Your task to perform on an android device: Add macbook to the cart on newegg, then select checkout. Image 0: 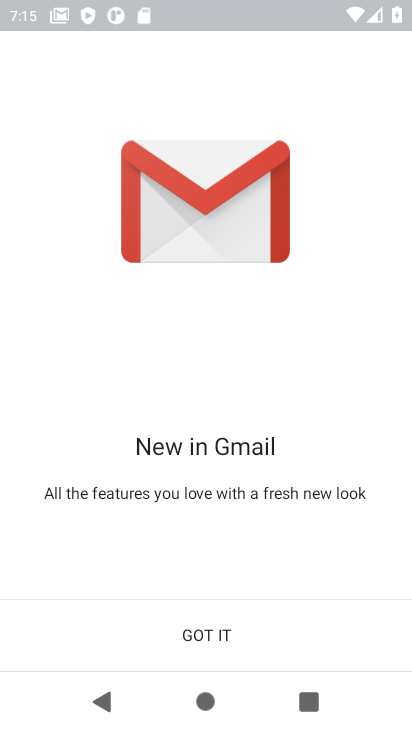
Step 0: press home button
Your task to perform on an android device: Add macbook to the cart on newegg, then select checkout. Image 1: 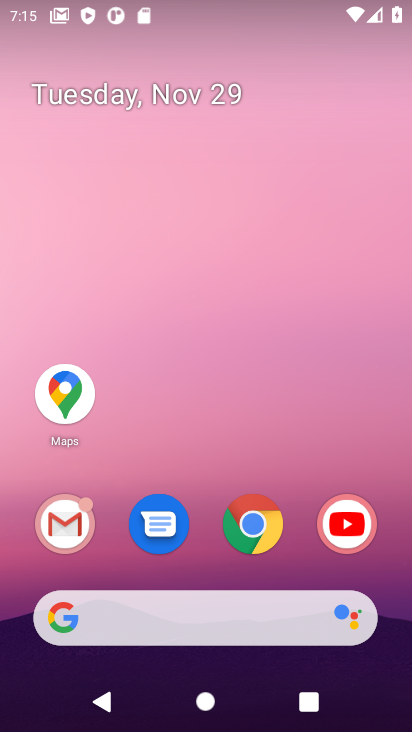
Step 1: click (257, 530)
Your task to perform on an android device: Add macbook to the cart on newegg, then select checkout. Image 2: 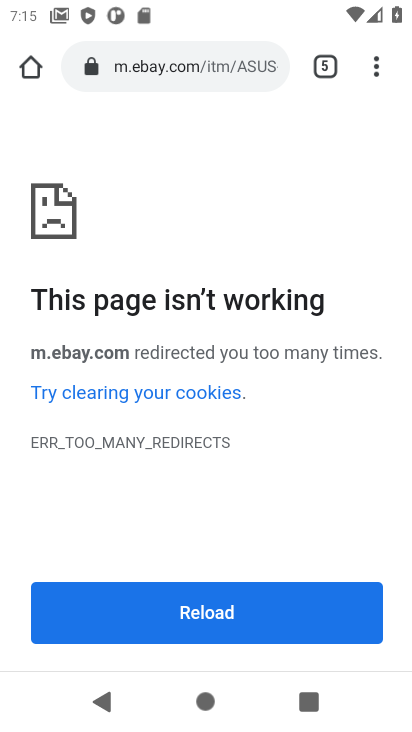
Step 2: click (168, 61)
Your task to perform on an android device: Add macbook to the cart on newegg, then select checkout. Image 3: 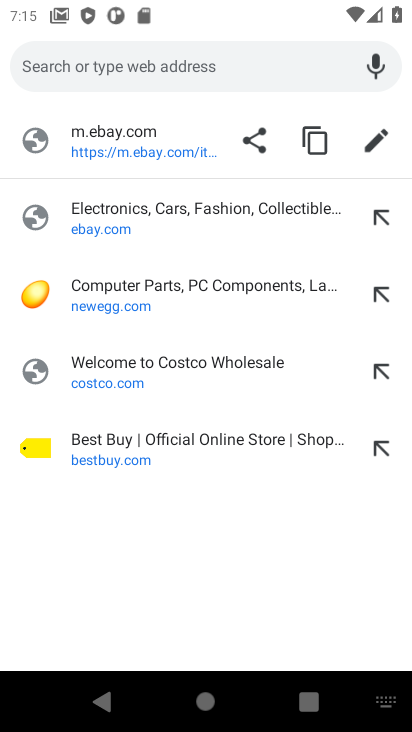
Step 3: click (73, 293)
Your task to perform on an android device: Add macbook to the cart on newegg, then select checkout. Image 4: 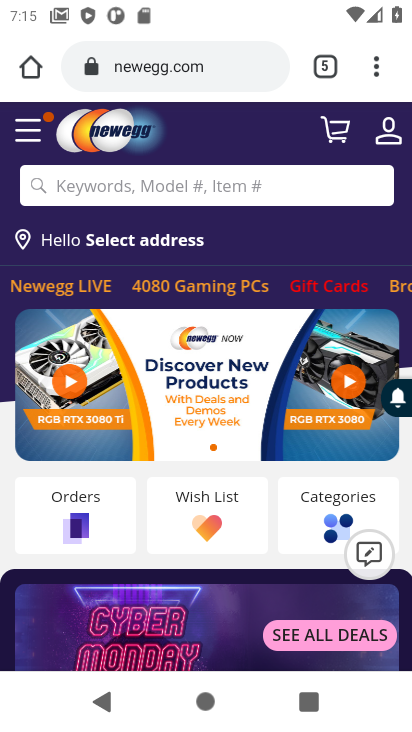
Step 4: click (95, 185)
Your task to perform on an android device: Add macbook to the cart on newegg, then select checkout. Image 5: 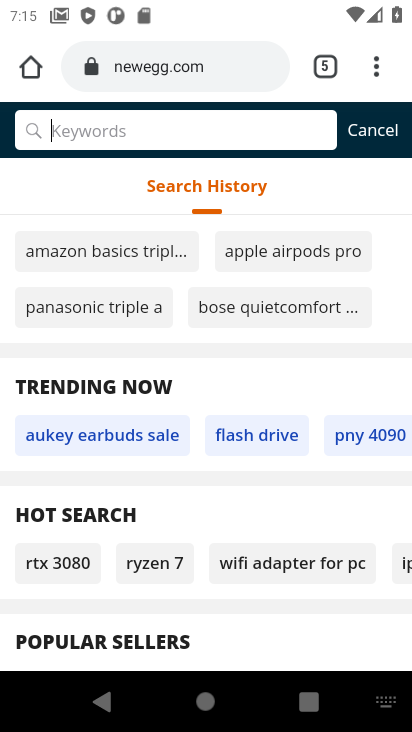
Step 5: type "macbook"
Your task to perform on an android device: Add macbook to the cart on newegg, then select checkout. Image 6: 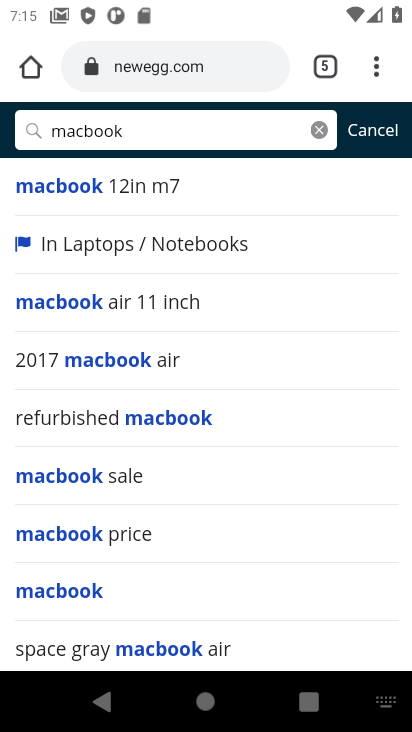
Step 6: click (50, 586)
Your task to perform on an android device: Add macbook to the cart on newegg, then select checkout. Image 7: 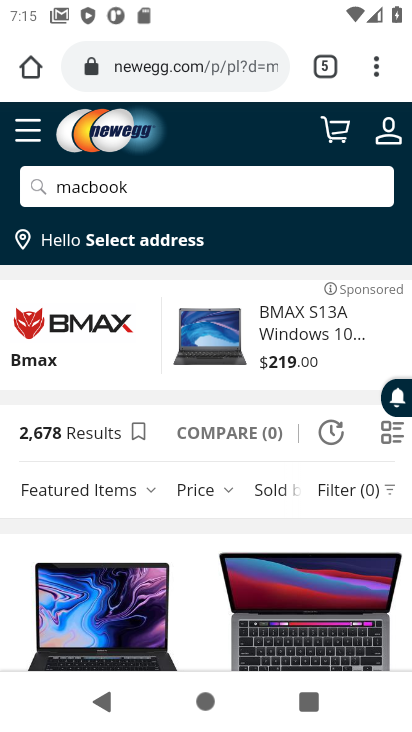
Step 7: drag from (147, 565) to (144, 415)
Your task to perform on an android device: Add macbook to the cart on newegg, then select checkout. Image 8: 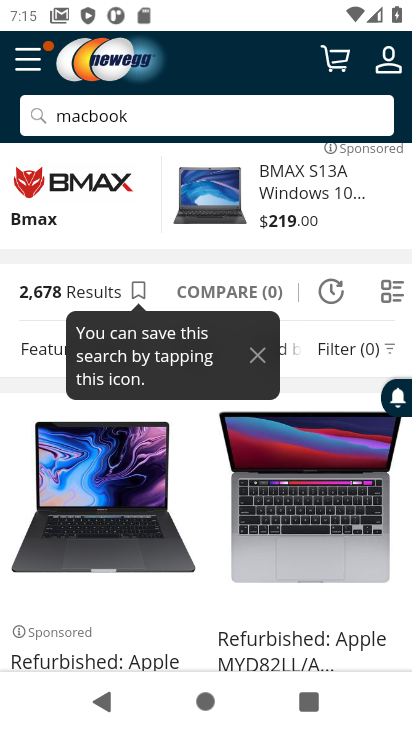
Step 8: drag from (155, 617) to (148, 455)
Your task to perform on an android device: Add macbook to the cart on newegg, then select checkout. Image 9: 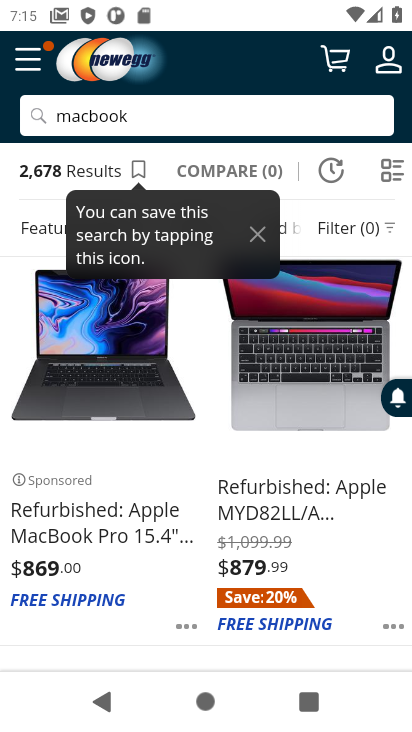
Step 9: click (87, 407)
Your task to perform on an android device: Add macbook to the cart on newegg, then select checkout. Image 10: 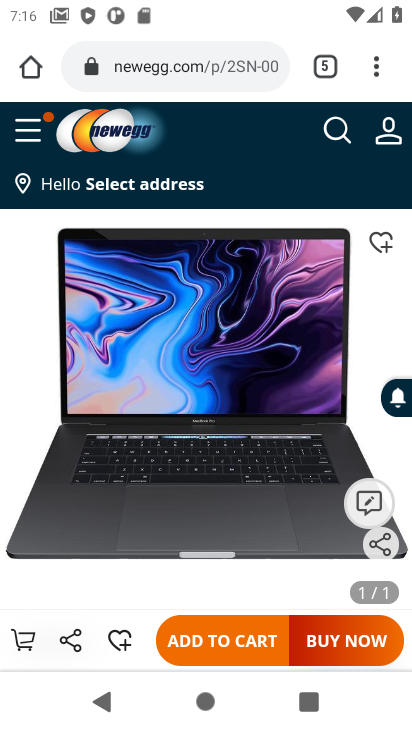
Step 10: click (211, 647)
Your task to perform on an android device: Add macbook to the cart on newegg, then select checkout. Image 11: 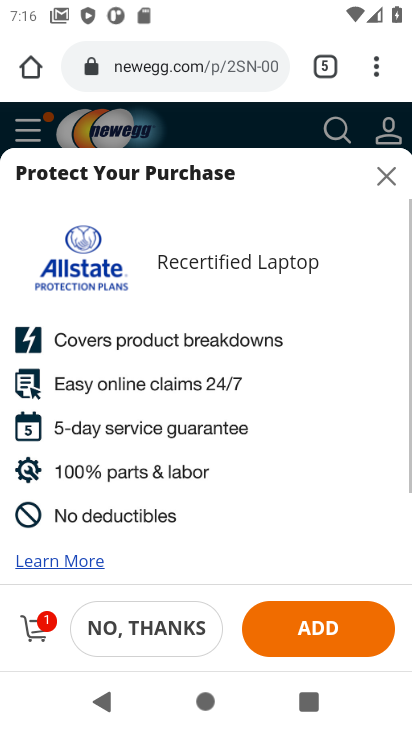
Step 11: click (30, 634)
Your task to perform on an android device: Add macbook to the cart on newegg, then select checkout. Image 12: 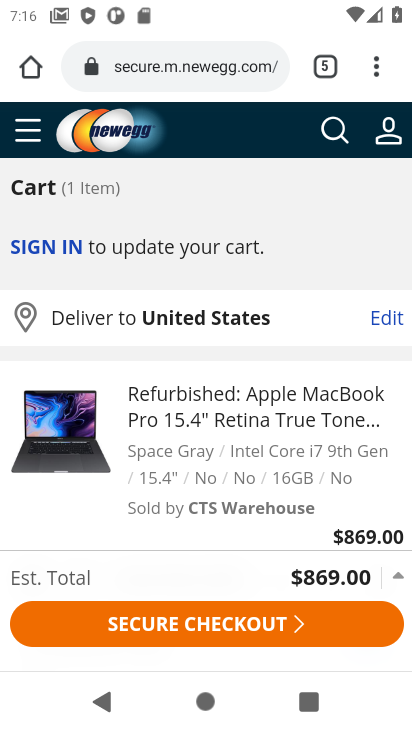
Step 12: click (148, 622)
Your task to perform on an android device: Add macbook to the cart on newegg, then select checkout. Image 13: 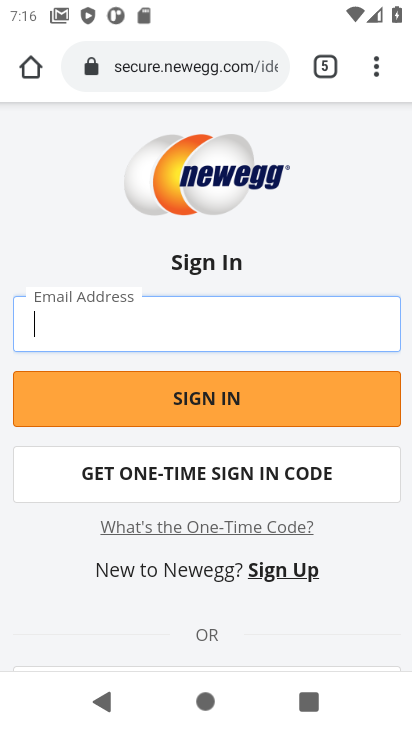
Step 13: task complete